Your task to perform on an android device: stop showing notifications on the lock screen Image 0: 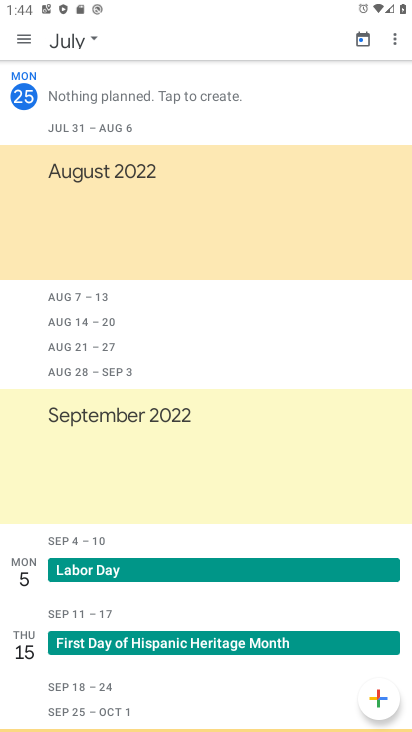
Step 0: press home button
Your task to perform on an android device: stop showing notifications on the lock screen Image 1: 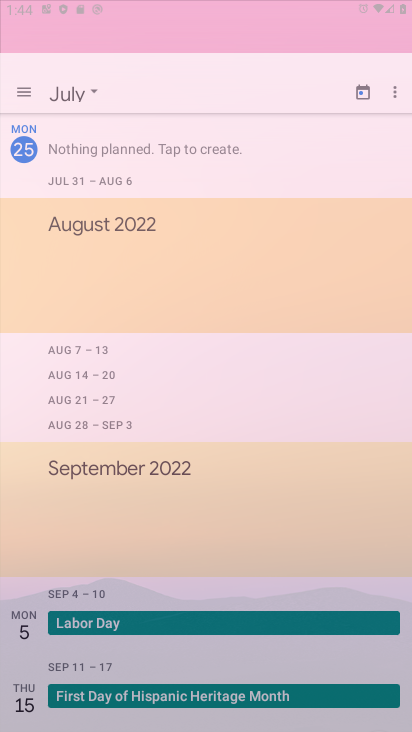
Step 1: drag from (374, 674) to (232, 17)
Your task to perform on an android device: stop showing notifications on the lock screen Image 2: 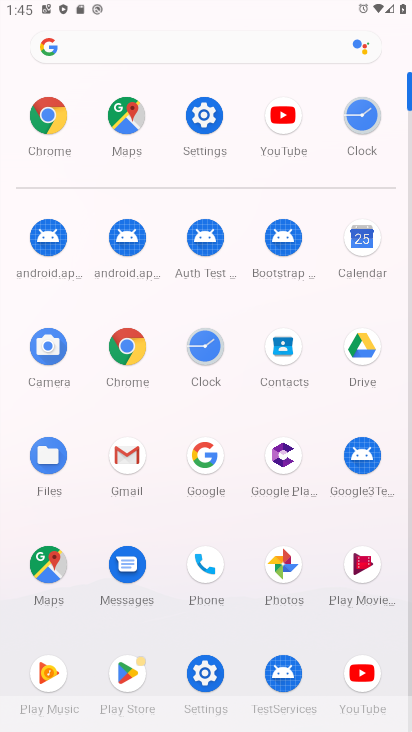
Step 2: click (230, 673)
Your task to perform on an android device: stop showing notifications on the lock screen Image 3: 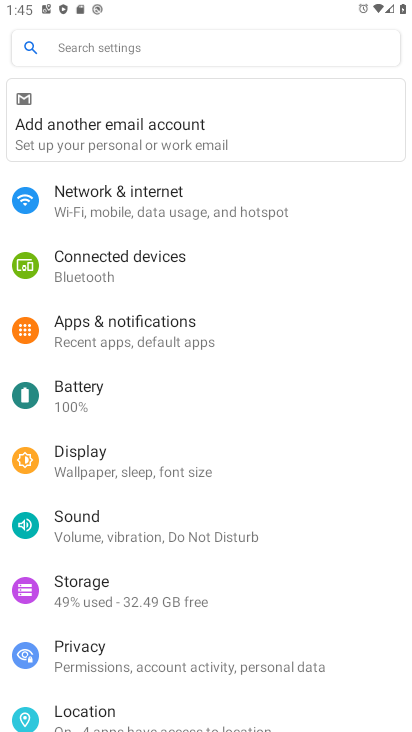
Step 3: click (206, 328)
Your task to perform on an android device: stop showing notifications on the lock screen Image 4: 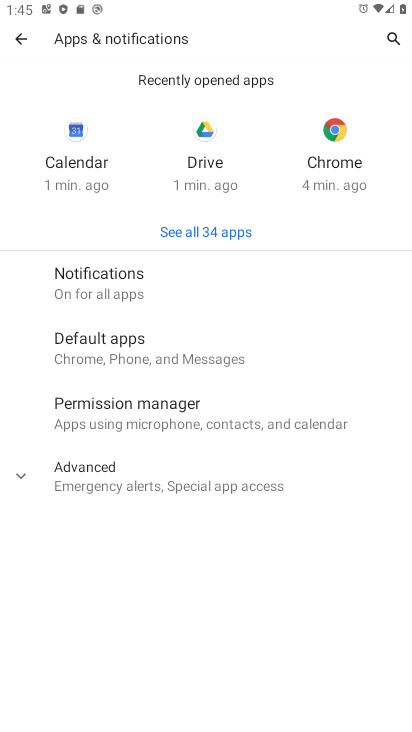
Step 4: click (105, 475)
Your task to perform on an android device: stop showing notifications on the lock screen Image 5: 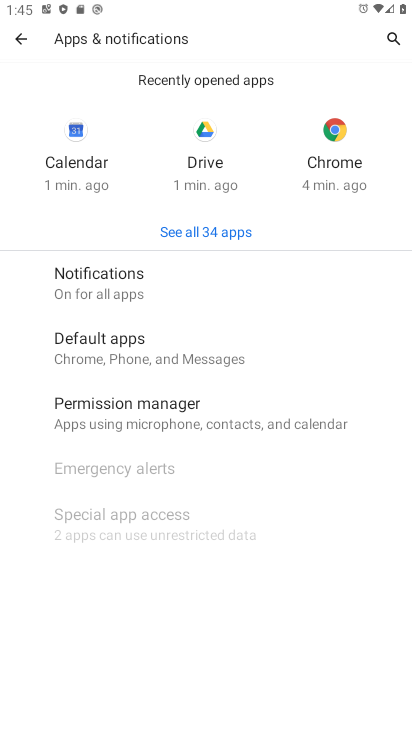
Step 5: click (113, 305)
Your task to perform on an android device: stop showing notifications on the lock screen Image 6: 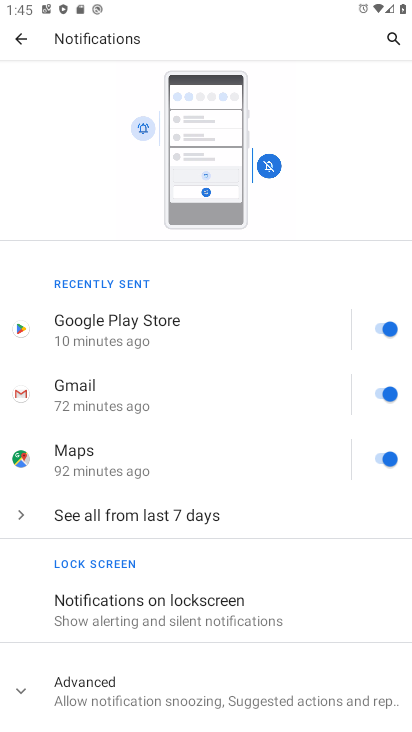
Step 6: click (220, 607)
Your task to perform on an android device: stop showing notifications on the lock screen Image 7: 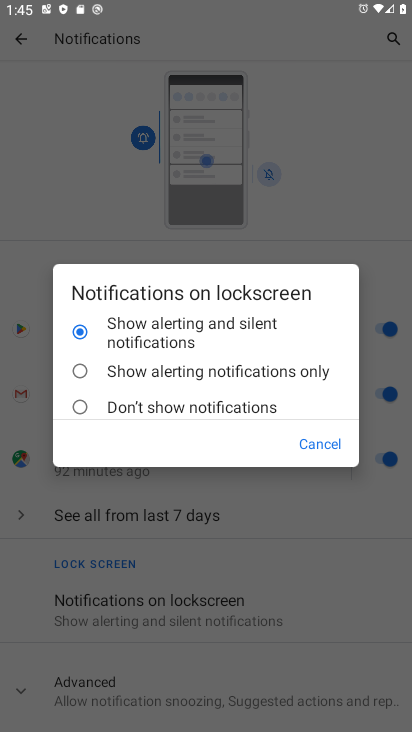
Step 7: click (128, 412)
Your task to perform on an android device: stop showing notifications on the lock screen Image 8: 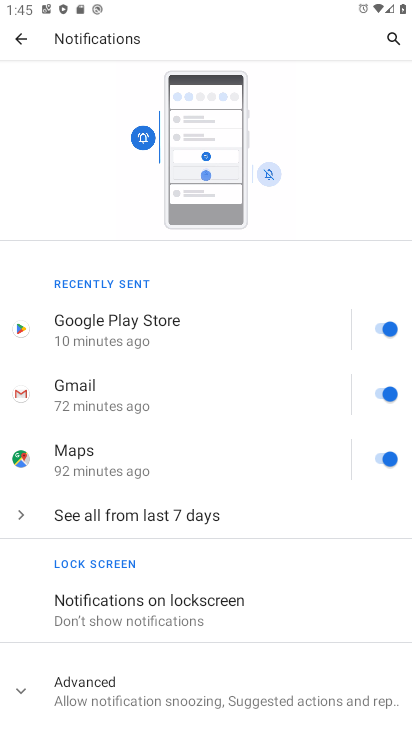
Step 8: task complete